Your task to perform on an android device: Go to Amazon Image 0: 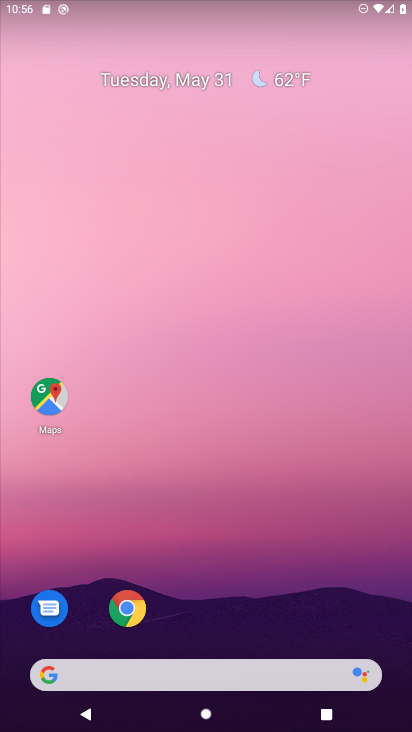
Step 0: drag from (372, 643) to (341, 166)
Your task to perform on an android device: Go to Amazon Image 1: 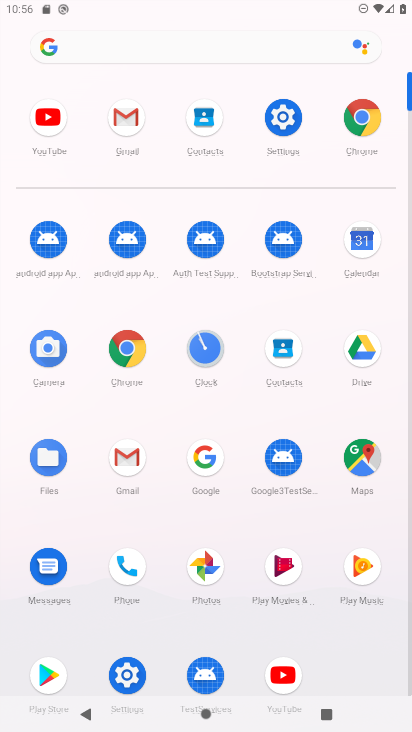
Step 1: click (135, 338)
Your task to perform on an android device: Go to Amazon Image 2: 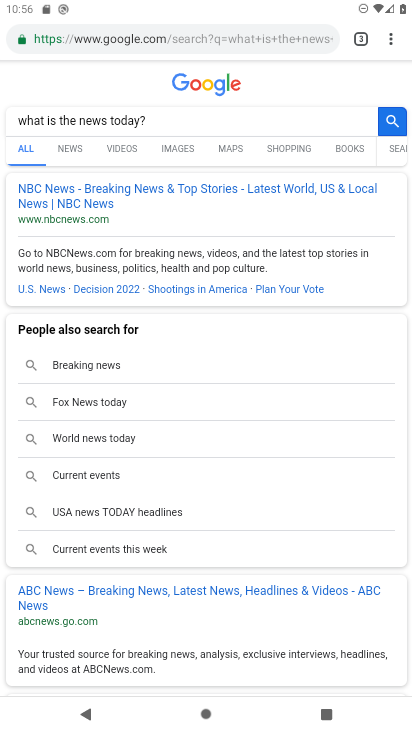
Step 2: drag from (271, 617) to (278, 376)
Your task to perform on an android device: Go to Amazon Image 3: 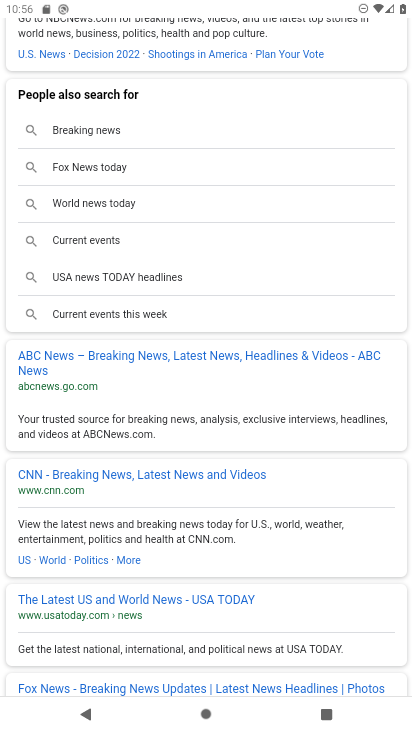
Step 3: drag from (261, 208) to (212, 573)
Your task to perform on an android device: Go to Amazon Image 4: 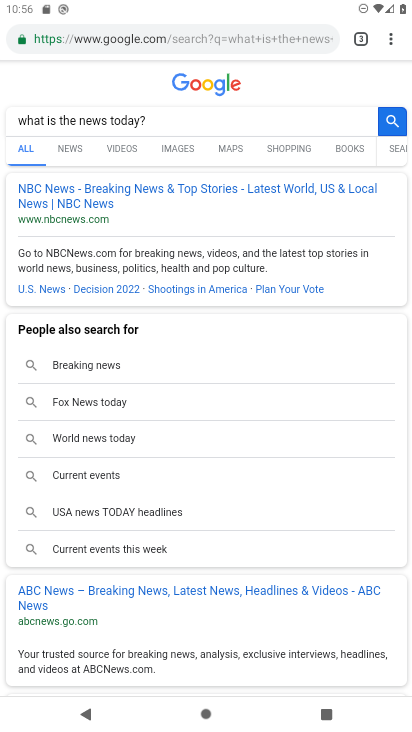
Step 4: click (360, 40)
Your task to perform on an android device: Go to Amazon Image 5: 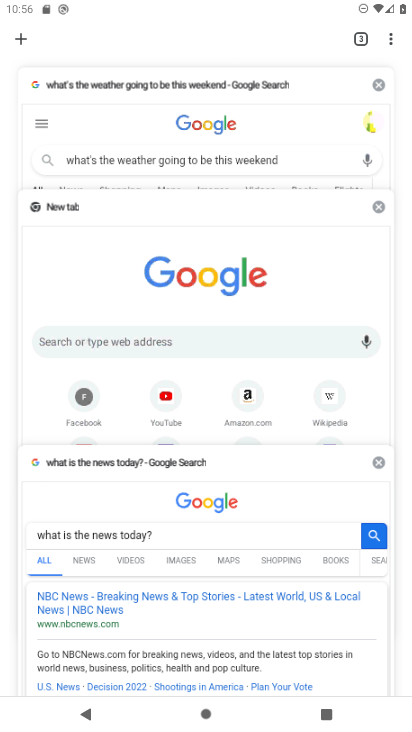
Step 5: click (29, 46)
Your task to perform on an android device: Go to Amazon Image 6: 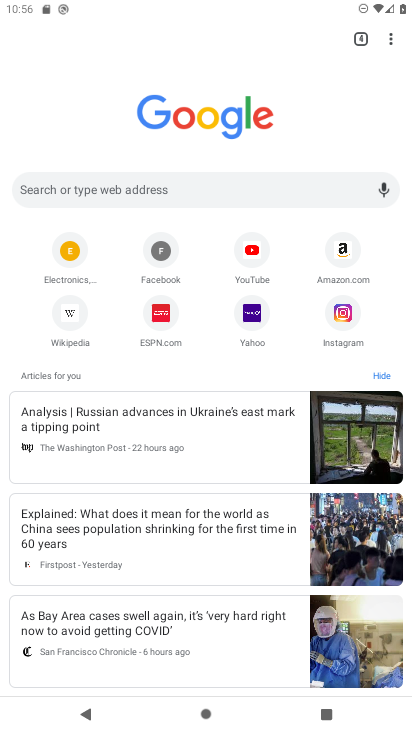
Step 6: click (337, 248)
Your task to perform on an android device: Go to Amazon Image 7: 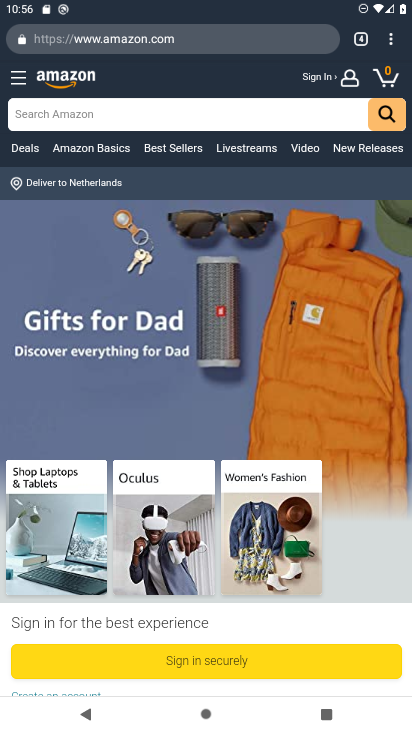
Step 7: task complete